Your task to perform on an android device: turn off javascript in the chrome app Image 0: 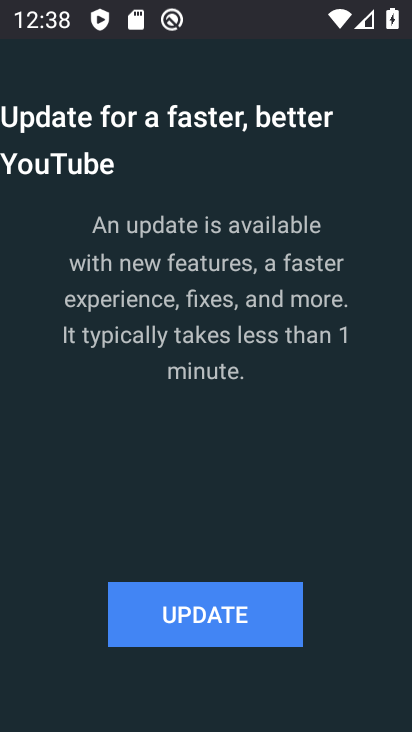
Step 0: press back button
Your task to perform on an android device: turn off javascript in the chrome app Image 1: 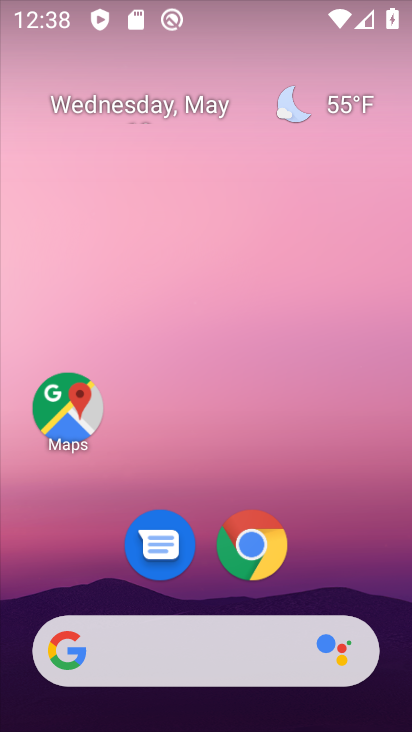
Step 1: click (256, 551)
Your task to perform on an android device: turn off javascript in the chrome app Image 2: 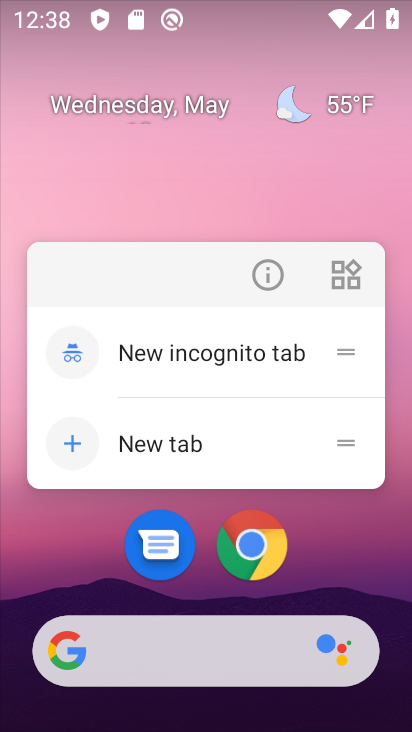
Step 2: click (254, 565)
Your task to perform on an android device: turn off javascript in the chrome app Image 3: 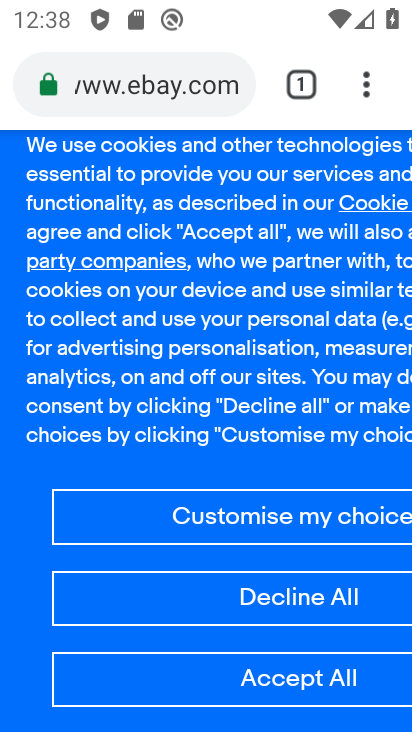
Step 3: click (368, 91)
Your task to perform on an android device: turn off javascript in the chrome app Image 4: 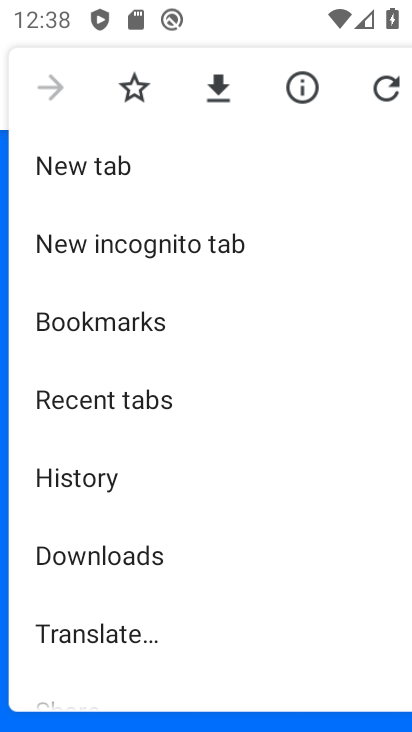
Step 4: drag from (273, 593) to (247, 310)
Your task to perform on an android device: turn off javascript in the chrome app Image 5: 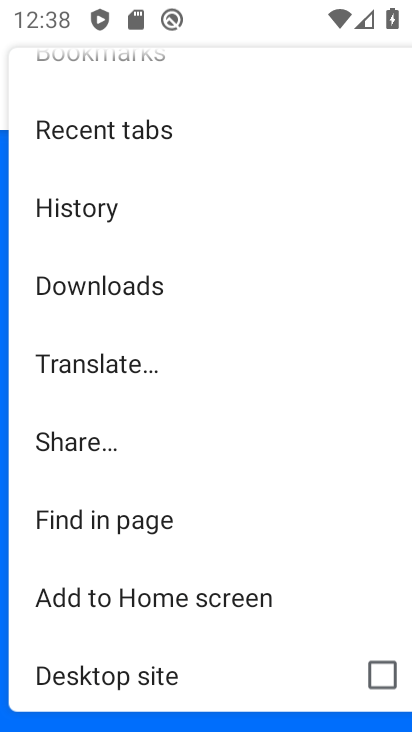
Step 5: drag from (210, 590) to (185, 336)
Your task to perform on an android device: turn off javascript in the chrome app Image 6: 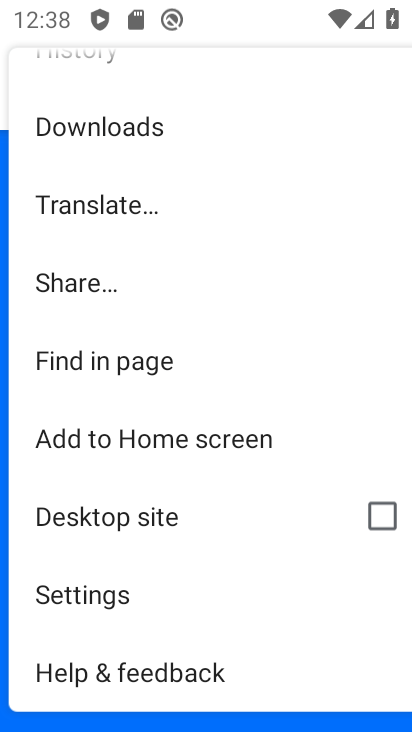
Step 6: click (168, 600)
Your task to perform on an android device: turn off javascript in the chrome app Image 7: 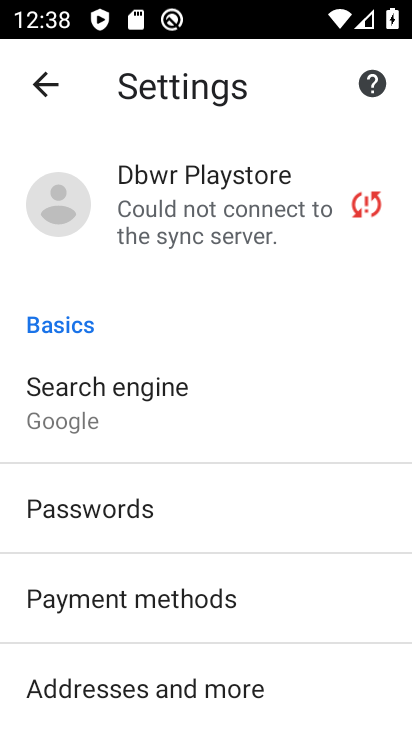
Step 7: drag from (134, 571) to (130, 203)
Your task to perform on an android device: turn off javascript in the chrome app Image 8: 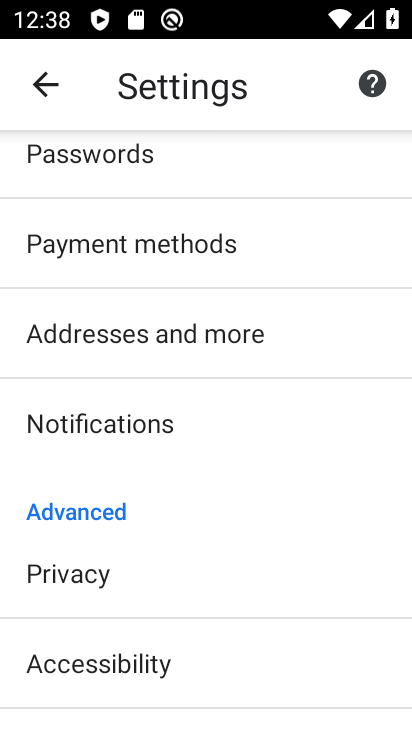
Step 8: drag from (132, 640) to (156, 396)
Your task to perform on an android device: turn off javascript in the chrome app Image 9: 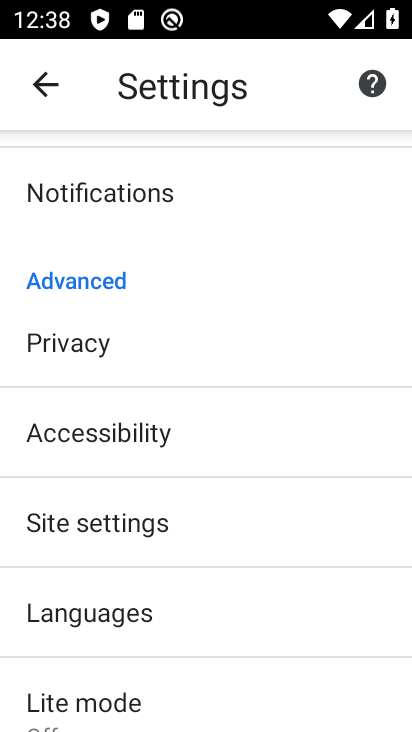
Step 9: click (122, 527)
Your task to perform on an android device: turn off javascript in the chrome app Image 10: 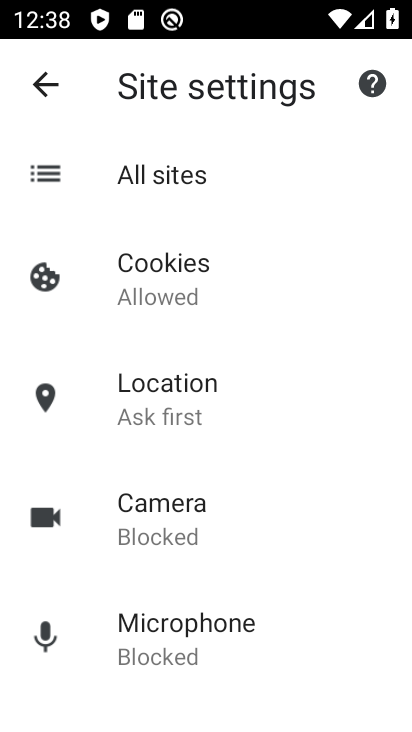
Step 10: drag from (180, 608) to (174, 297)
Your task to perform on an android device: turn off javascript in the chrome app Image 11: 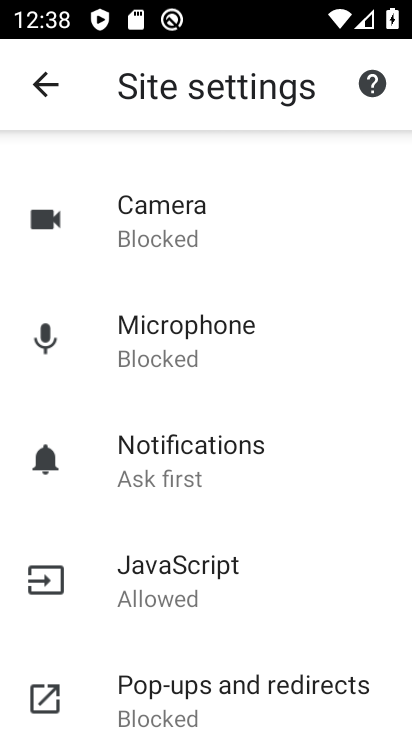
Step 11: click (161, 576)
Your task to perform on an android device: turn off javascript in the chrome app Image 12: 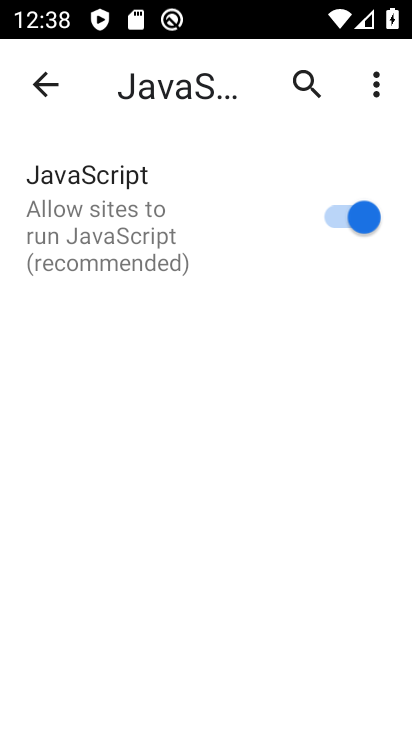
Step 12: click (333, 219)
Your task to perform on an android device: turn off javascript in the chrome app Image 13: 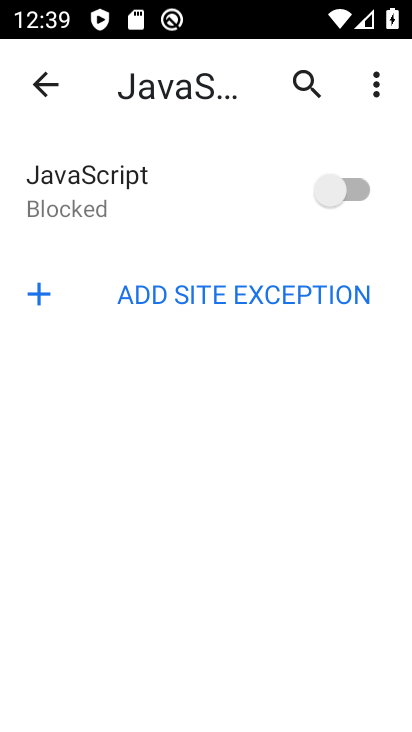
Step 13: task complete